Your task to perform on an android device: turn on data saver in the chrome app Image 0: 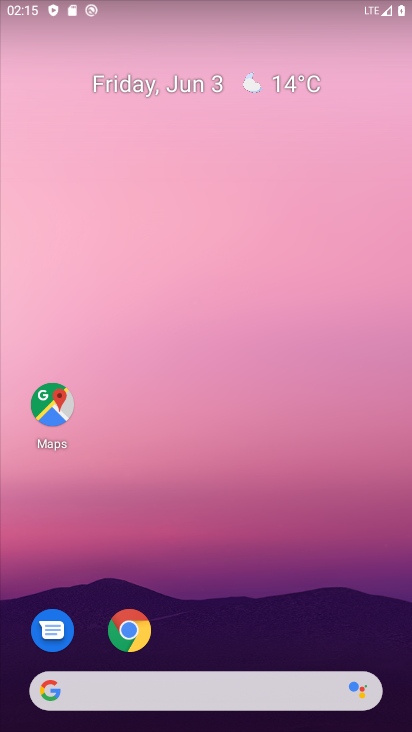
Step 0: click (122, 630)
Your task to perform on an android device: turn on data saver in the chrome app Image 1: 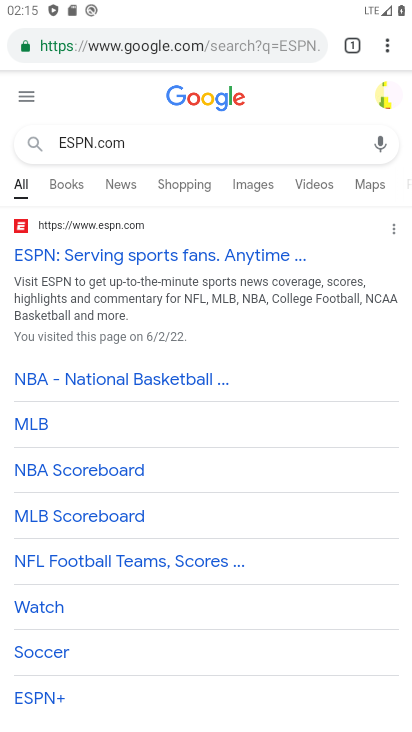
Step 1: click (389, 46)
Your task to perform on an android device: turn on data saver in the chrome app Image 2: 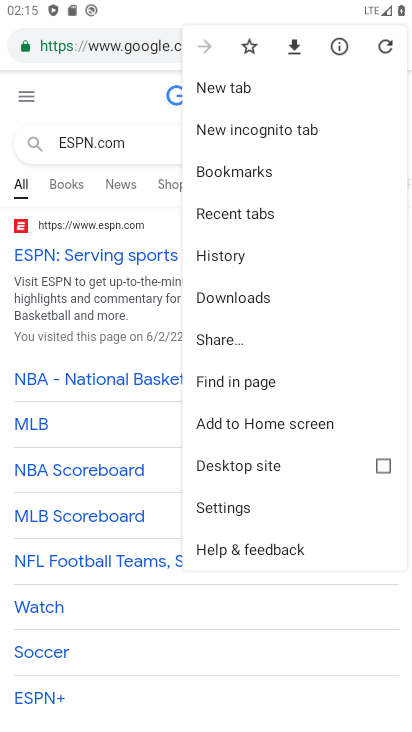
Step 2: click (228, 508)
Your task to perform on an android device: turn on data saver in the chrome app Image 3: 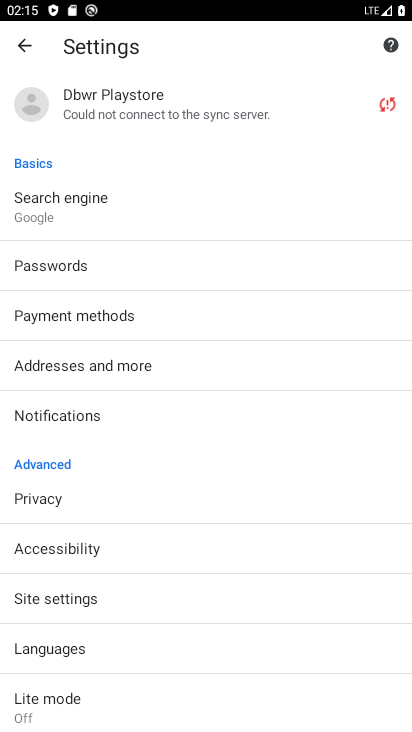
Step 3: click (55, 707)
Your task to perform on an android device: turn on data saver in the chrome app Image 4: 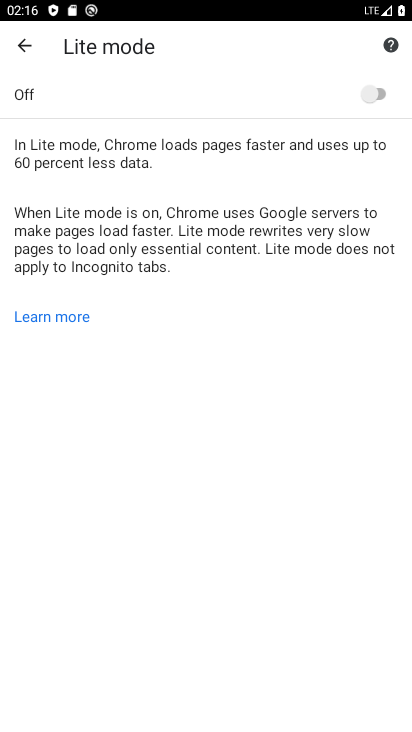
Step 4: click (377, 97)
Your task to perform on an android device: turn on data saver in the chrome app Image 5: 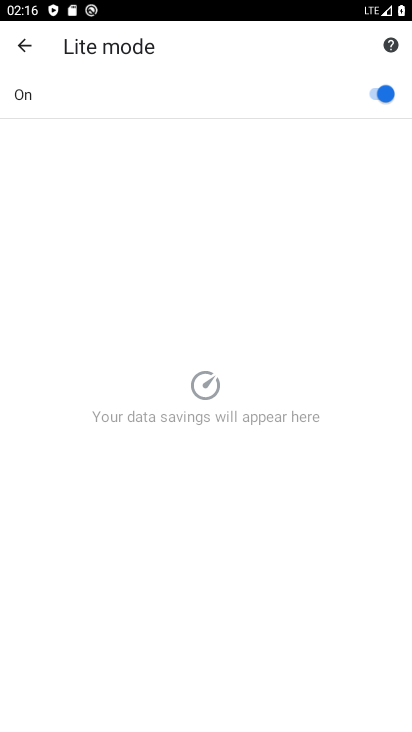
Step 5: task complete